Your task to perform on an android device: Search for sushi restaurants on Maps Image 0: 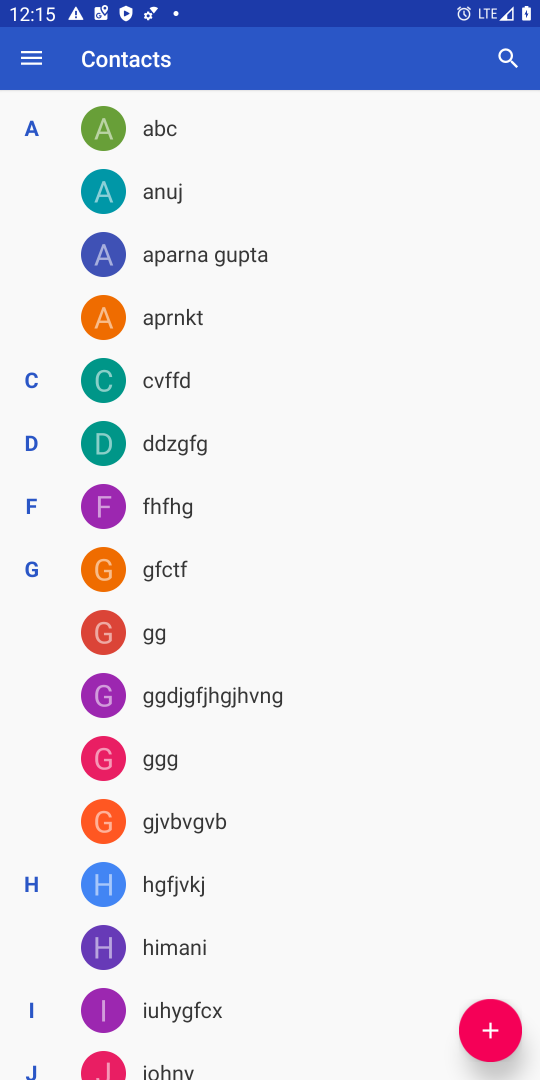
Step 0: press home button
Your task to perform on an android device: Search for sushi restaurants on Maps Image 1: 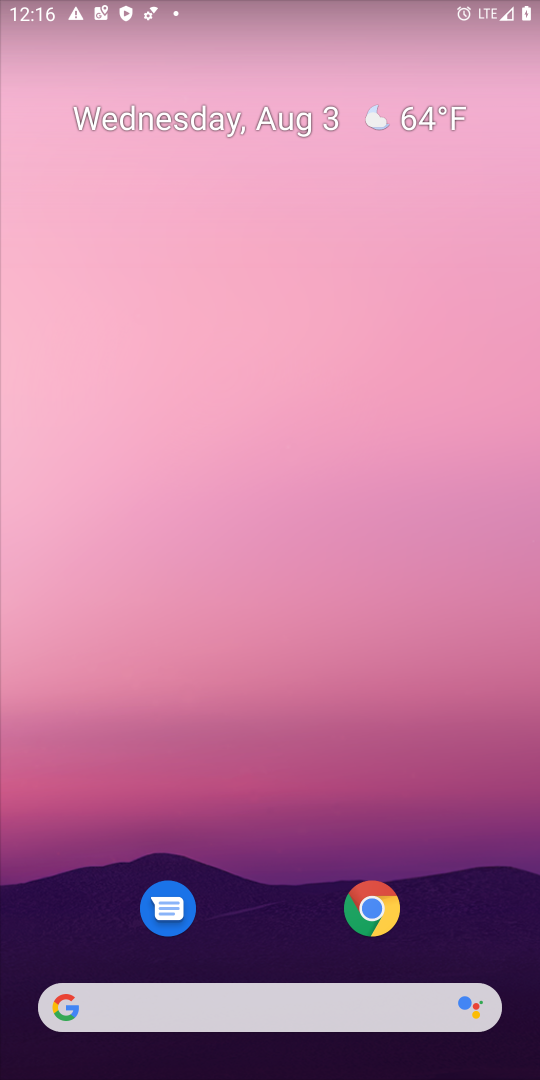
Step 1: drag from (287, 866) to (175, 3)
Your task to perform on an android device: Search for sushi restaurants on Maps Image 2: 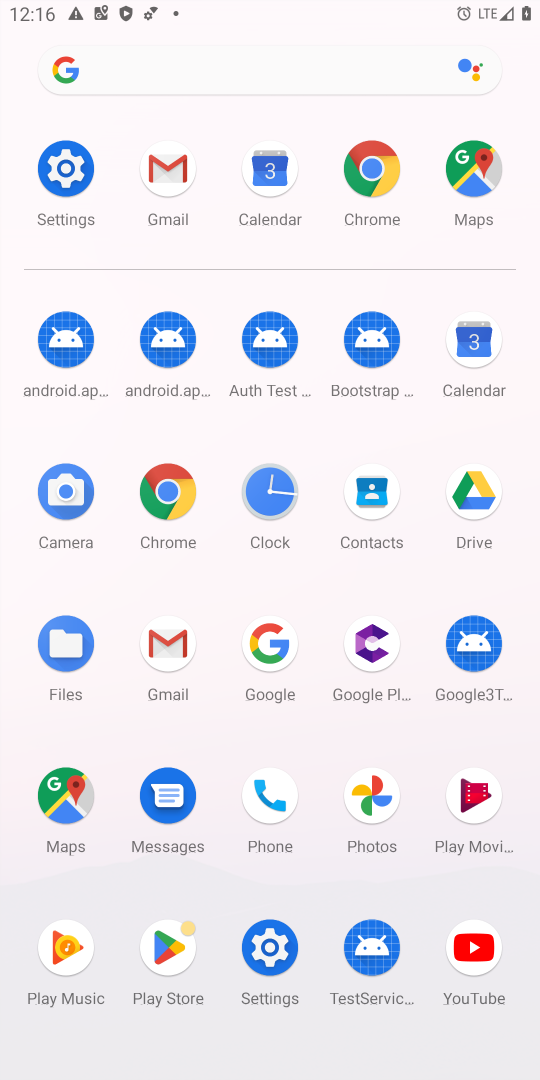
Step 2: click (72, 813)
Your task to perform on an android device: Search for sushi restaurants on Maps Image 3: 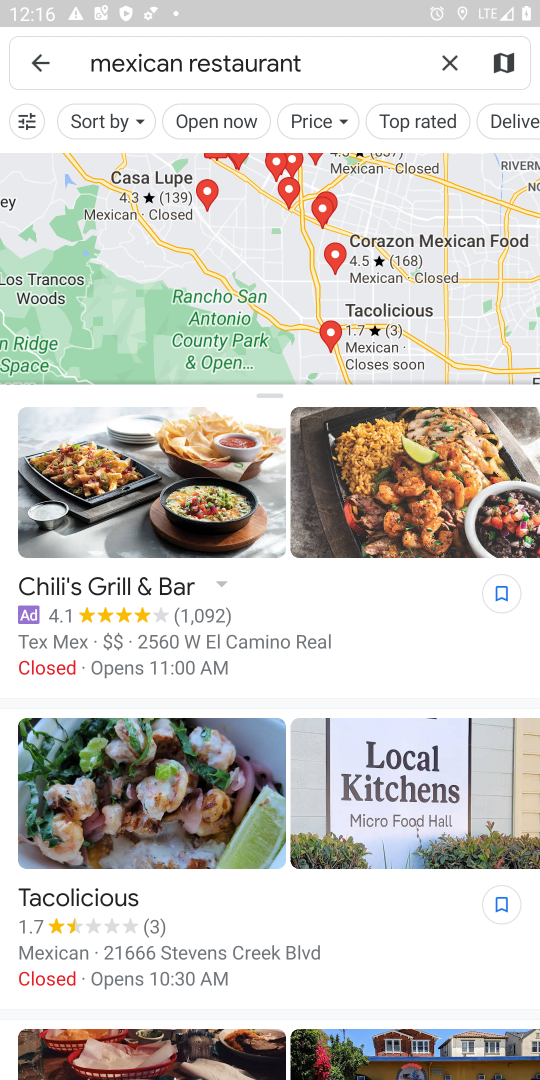
Step 3: click (442, 65)
Your task to perform on an android device: Search for sushi restaurants on Maps Image 4: 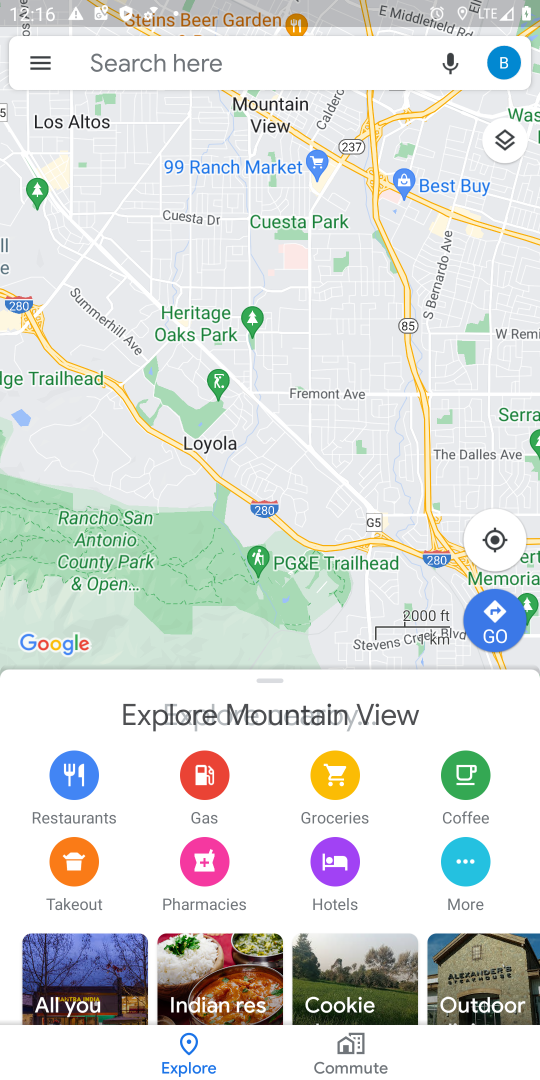
Step 4: click (278, 67)
Your task to perform on an android device: Search for sushi restaurants on Maps Image 5: 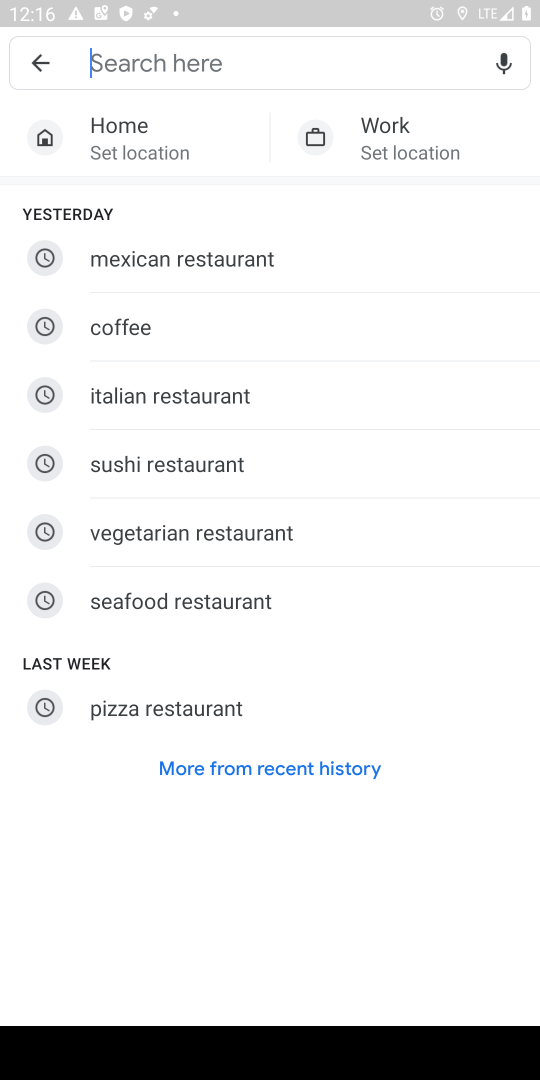
Step 5: click (229, 456)
Your task to perform on an android device: Search for sushi restaurants on Maps Image 6: 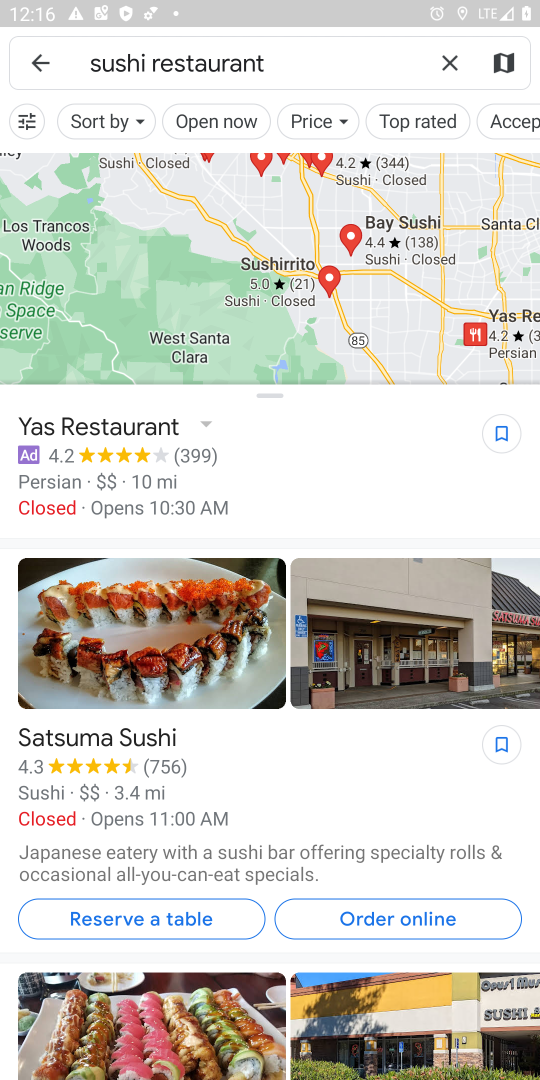
Step 6: task complete